Your task to perform on an android device: Go to accessibility settings Image 0: 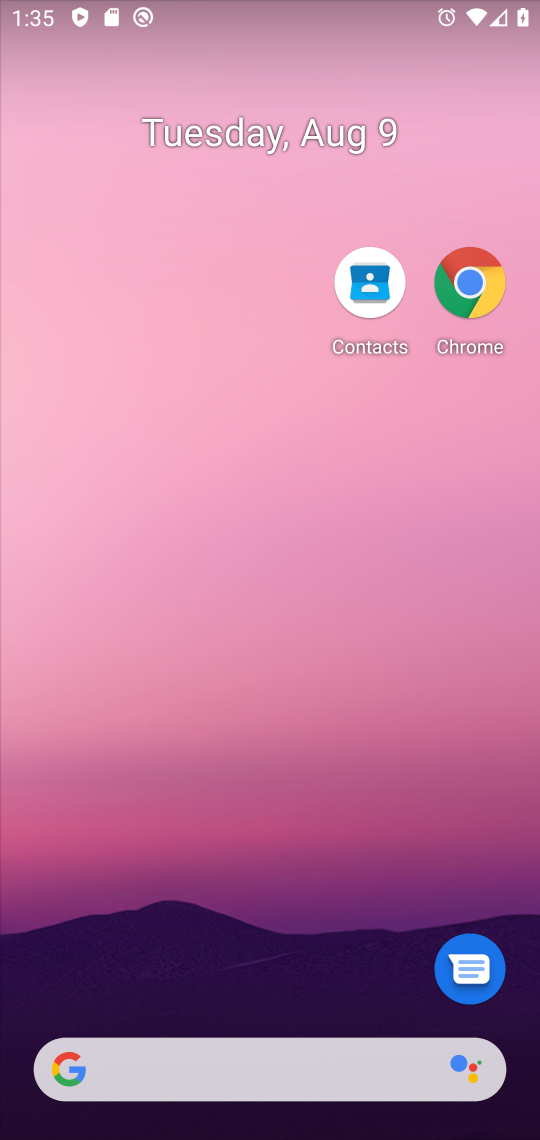
Step 0: drag from (341, 417) to (343, 4)
Your task to perform on an android device: Go to accessibility settings Image 1: 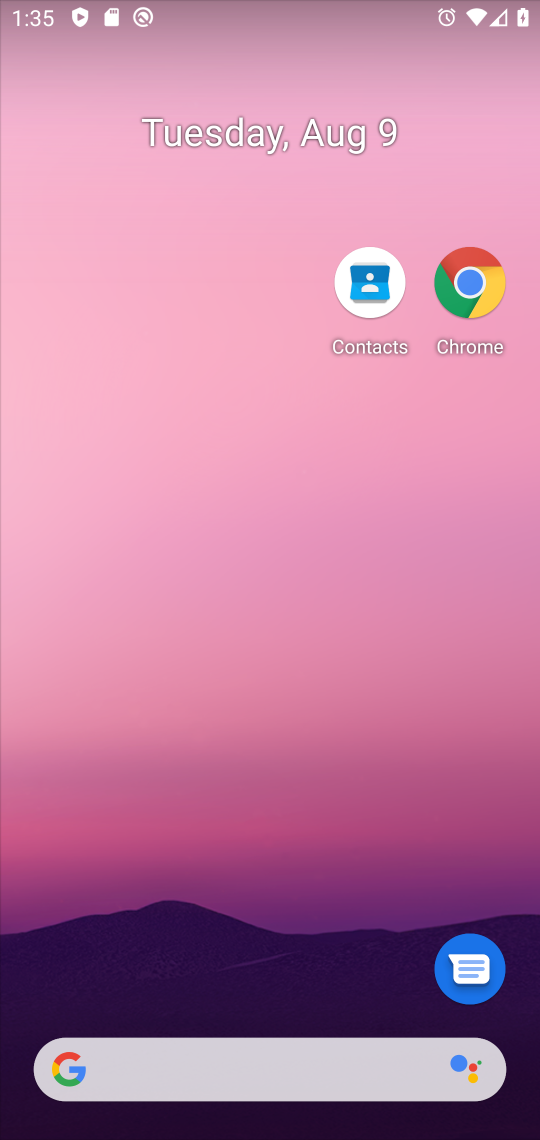
Step 1: drag from (340, 916) to (390, 8)
Your task to perform on an android device: Go to accessibility settings Image 2: 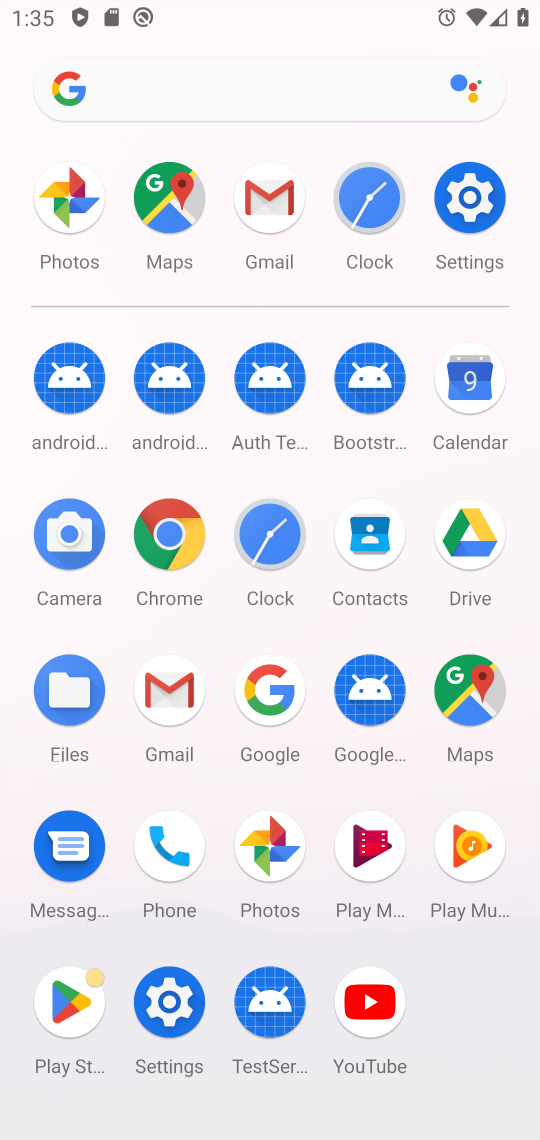
Step 2: drag from (325, 899) to (355, 373)
Your task to perform on an android device: Go to accessibility settings Image 3: 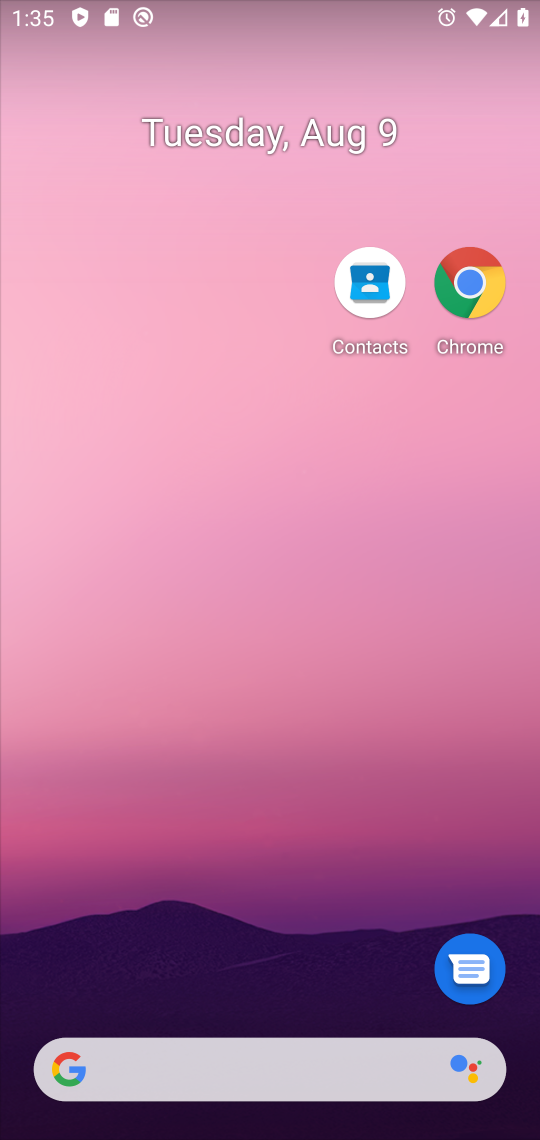
Step 3: drag from (280, 873) to (379, 202)
Your task to perform on an android device: Go to accessibility settings Image 4: 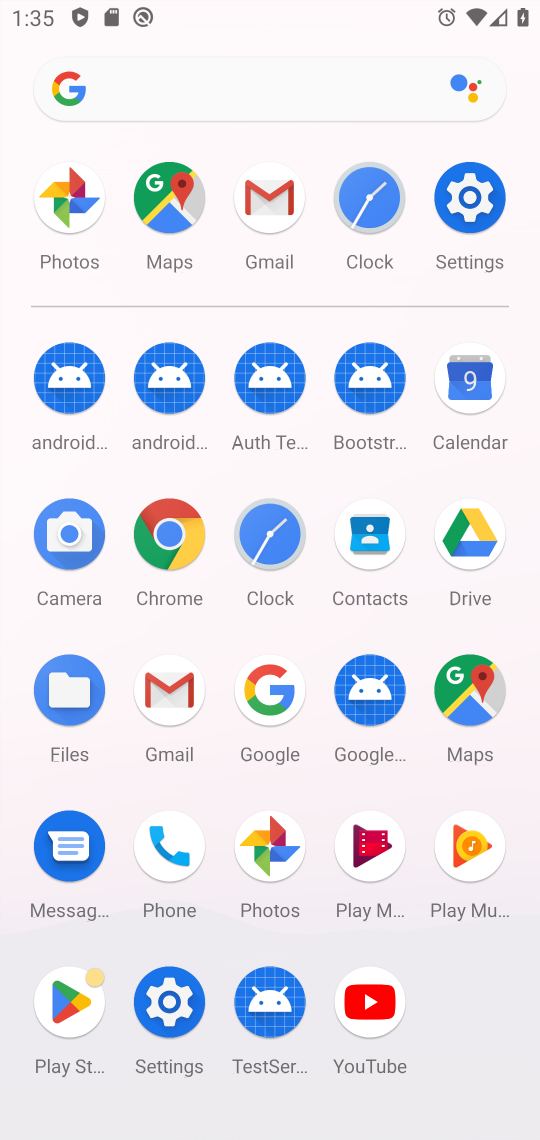
Step 4: drag from (314, 897) to (323, 304)
Your task to perform on an android device: Go to accessibility settings Image 5: 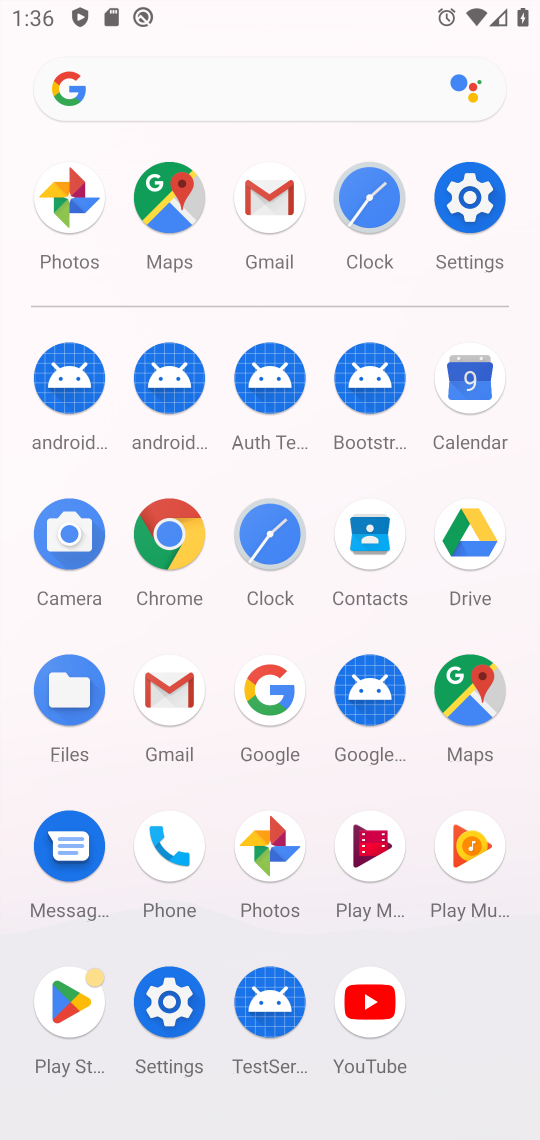
Step 5: drag from (229, 953) to (219, 555)
Your task to perform on an android device: Go to accessibility settings Image 6: 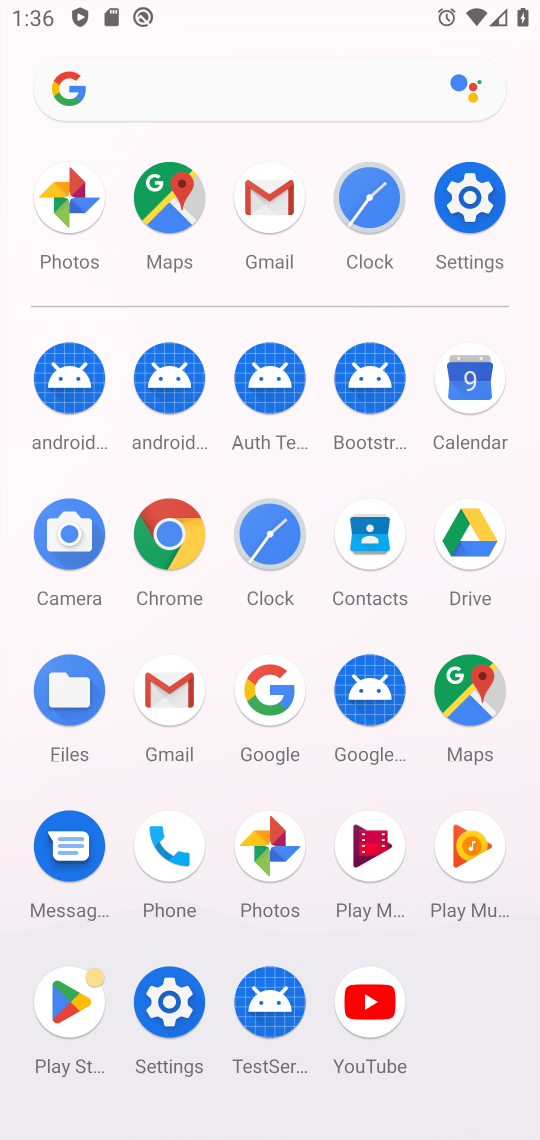
Step 6: click (175, 994)
Your task to perform on an android device: Go to accessibility settings Image 7: 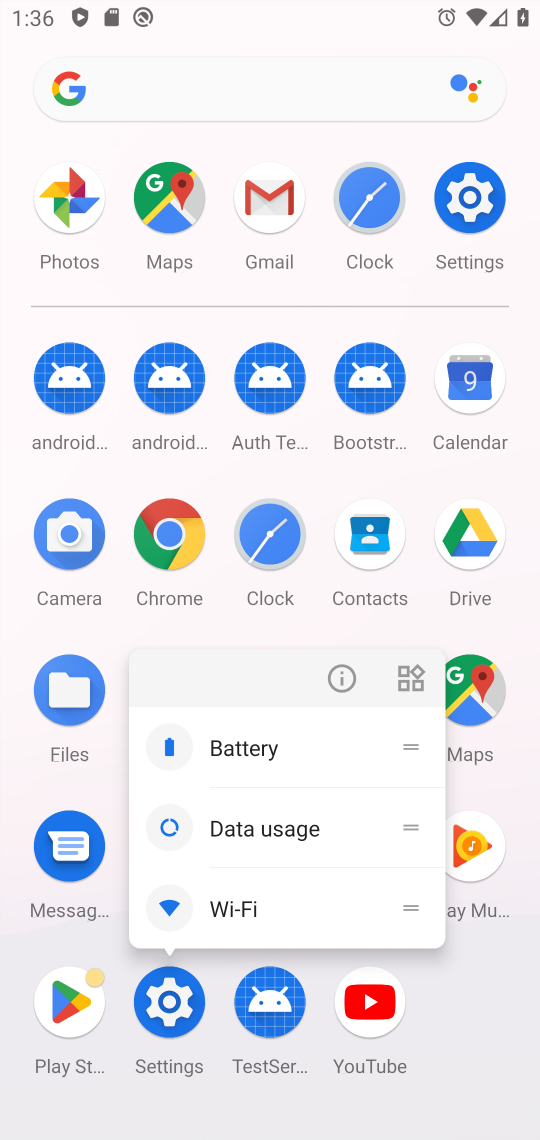
Step 7: click (338, 683)
Your task to perform on an android device: Go to accessibility settings Image 8: 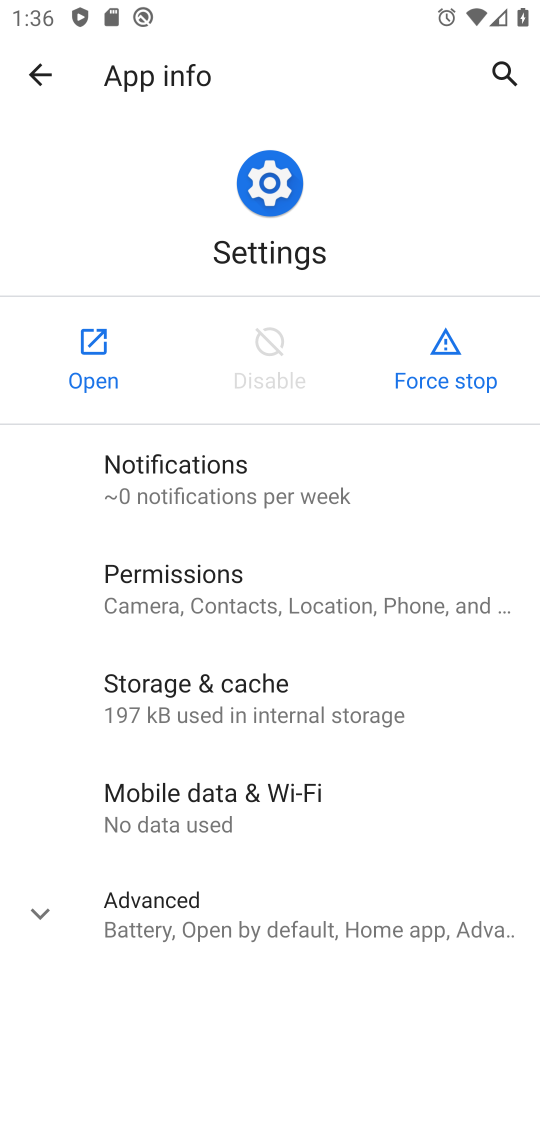
Step 8: click (93, 389)
Your task to perform on an android device: Go to accessibility settings Image 9: 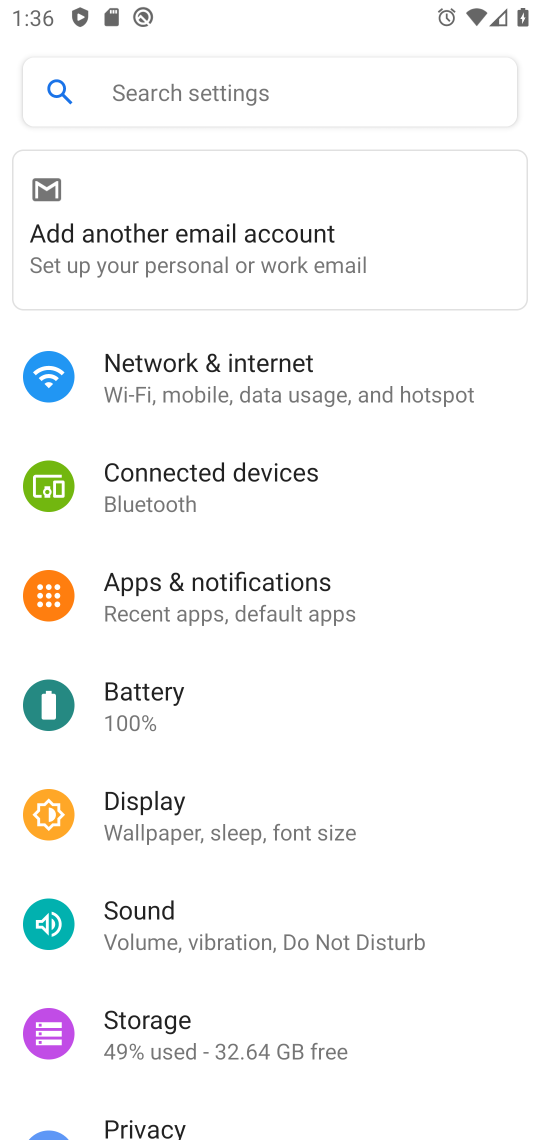
Step 9: drag from (256, 988) to (389, 152)
Your task to perform on an android device: Go to accessibility settings Image 10: 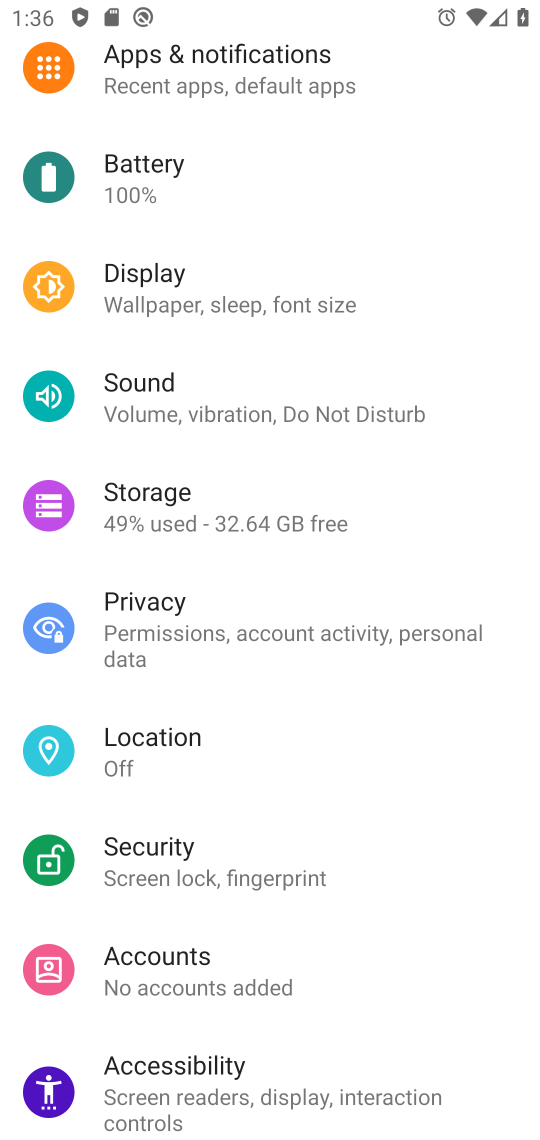
Step 10: drag from (183, 1015) to (304, 378)
Your task to perform on an android device: Go to accessibility settings Image 11: 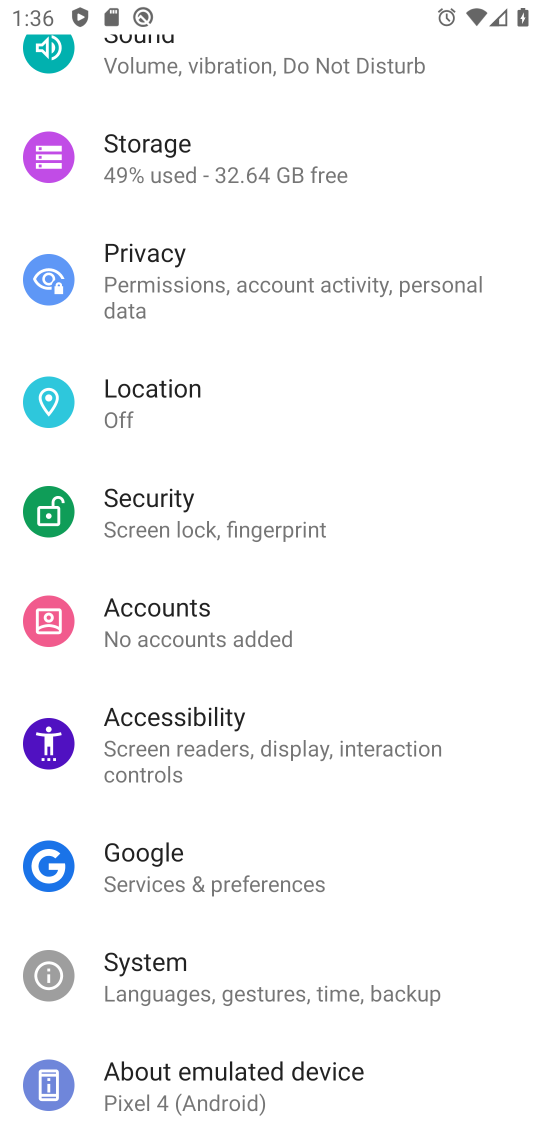
Step 11: click (203, 737)
Your task to perform on an android device: Go to accessibility settings Image 12: 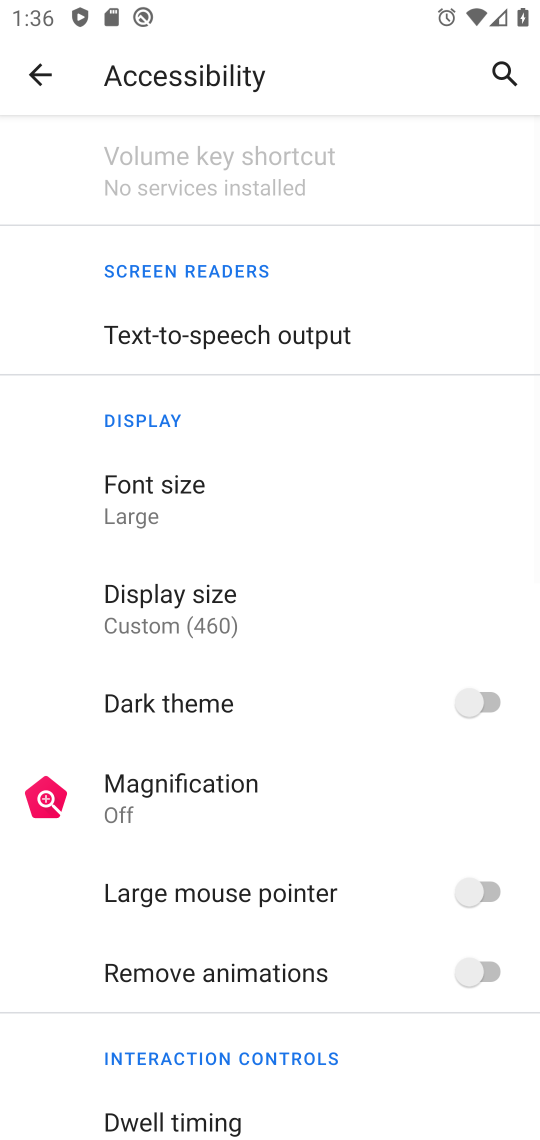
Step 12: task complete